Your task to perform on an android device: turn off translation in the chrome app Image 0: 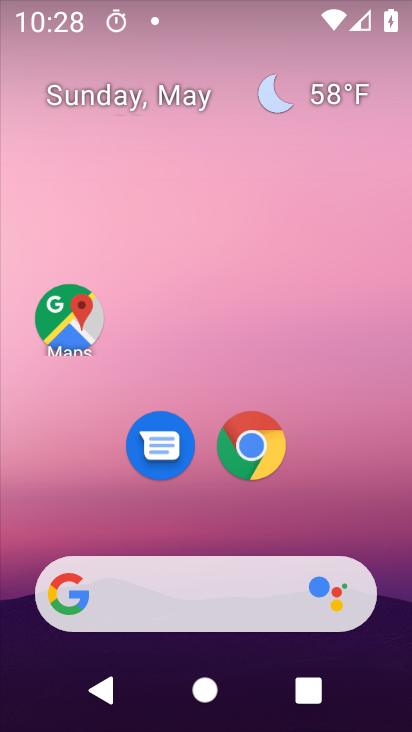
Step 0: drag from (333, 494) to (234, 20)
Your task to perform on an android device: turn off translation in the chrome app Image 1: 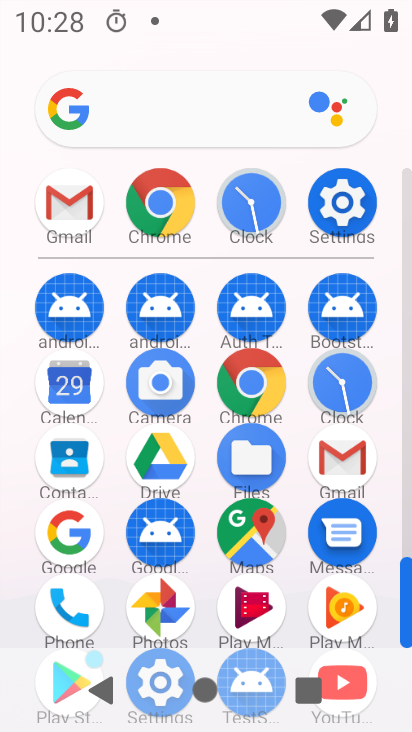
Step 1: click (254, 374)
Your task to perform on an android device: turn off translation in the chrome app Image 2: 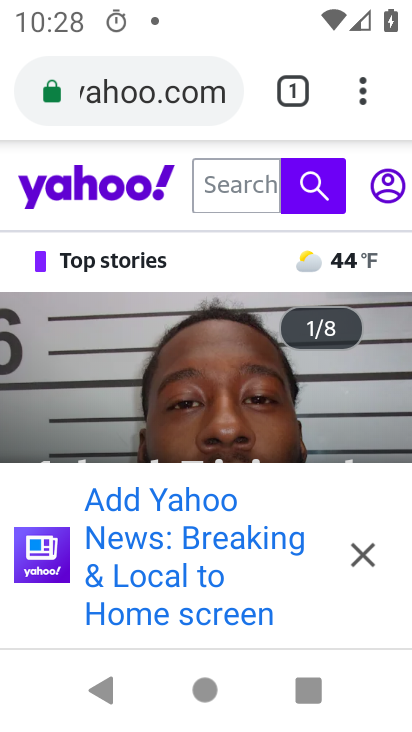
Step 2: drag from (365, 91) to (138, 555)
Your task to perform on an android device: turn off translation in the chrome app Image 3: 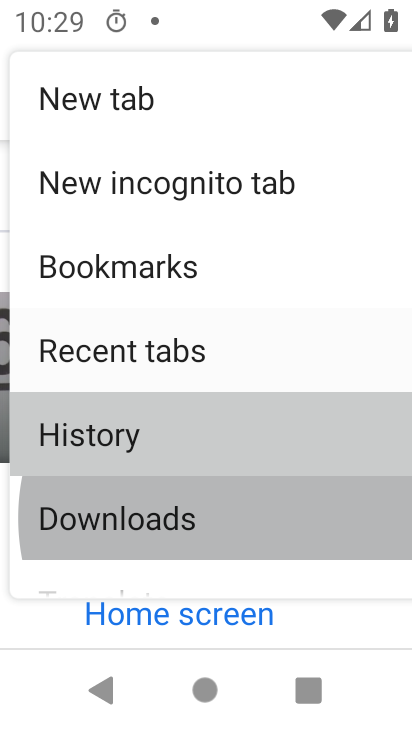
Step 3: drag from (137, 556) to (288, 137)
Your task to perform on an android device: turn off translation in the chrome app Image 4: 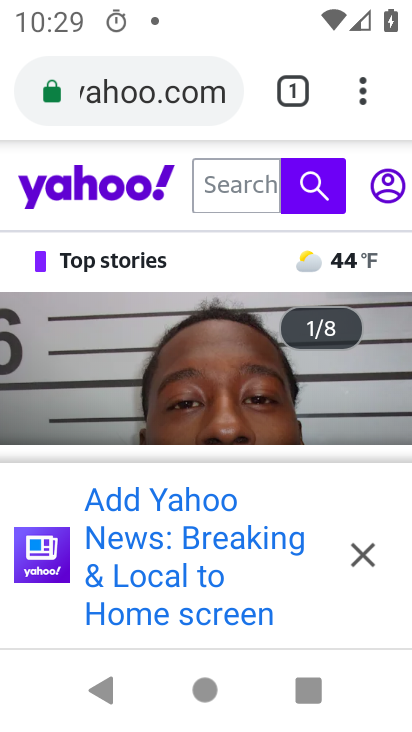
Step 4: drag from (360, 92) to (115, 457)
Your task to perform on an android device: turn off translation in the chrome app Image 5: 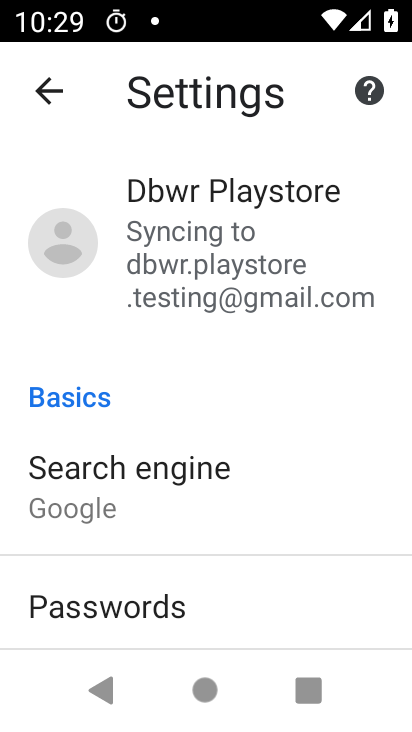
Step 5: drag from (259, 585) to (242, 153)
Your task to perform on an android device: turn off translation in the chrome app Image 6: 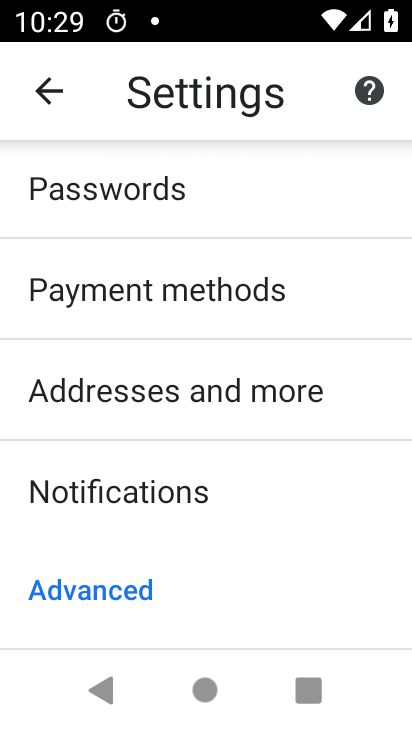
Step 6: drag from (138, 573) to (185, 197)
Your task to perform on an android device: turn off translation in the chrome app Image 7: 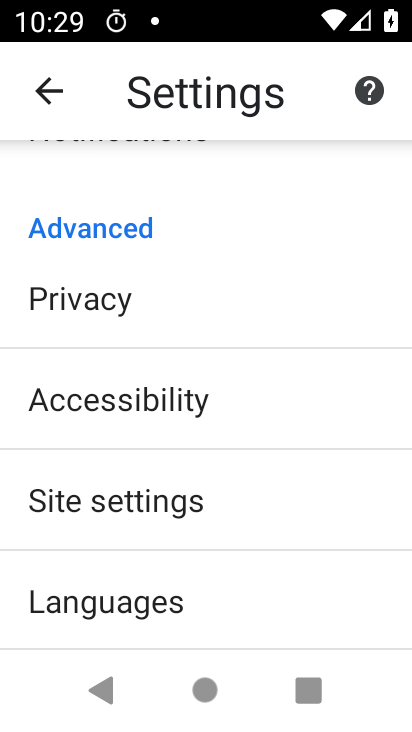
Step 7: drag from (232, 453) to (218, 197)
Your task to perform on an android device: turn off translation in the chrome app Image 8: 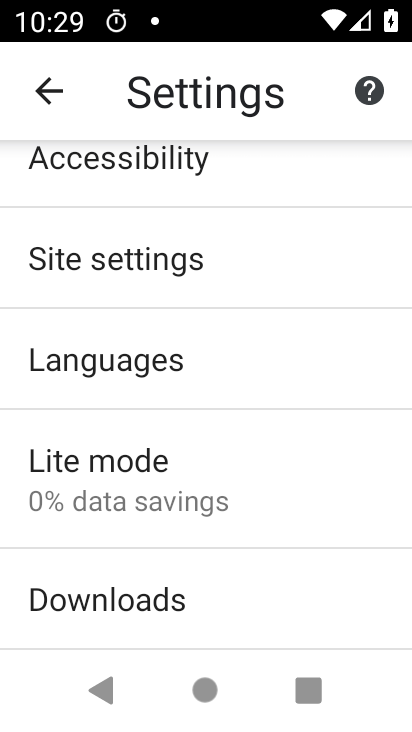
Step 8: drag from (189, 560) to (211, 214)
Your task to perform on an android device: turn off translation in the chrome app Image 9: 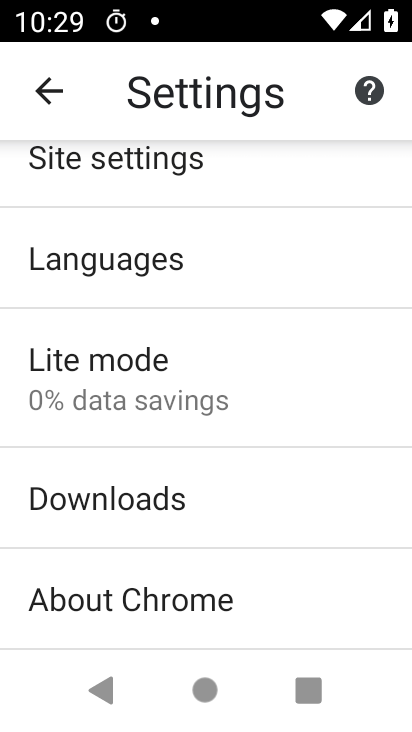
Step 9: click (165, 258)
Your task to perform on an android device: turn off translation in the chrome app Image 10: 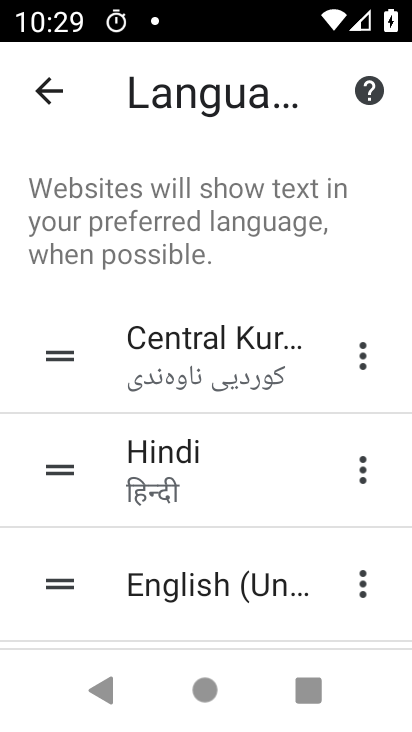
Step 10: drag from (242, 555) to (167, 265)
Your task to perform on an android device: turn off translation in the chrome app Image 11: 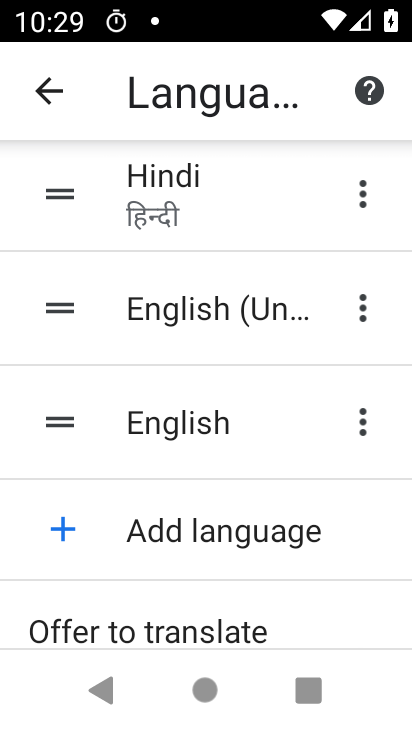
Step 11: drag from (139, 504) to (181, 257)
Your task to perform on an android device: turn off translation in the chrome app Image 12: 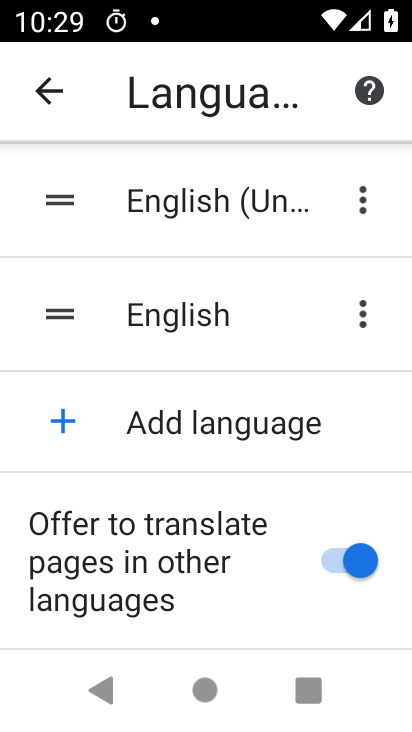
Step 12: click (325, 554)
Your task to perform on an android device: turn off translation in the chrome app Image 13: 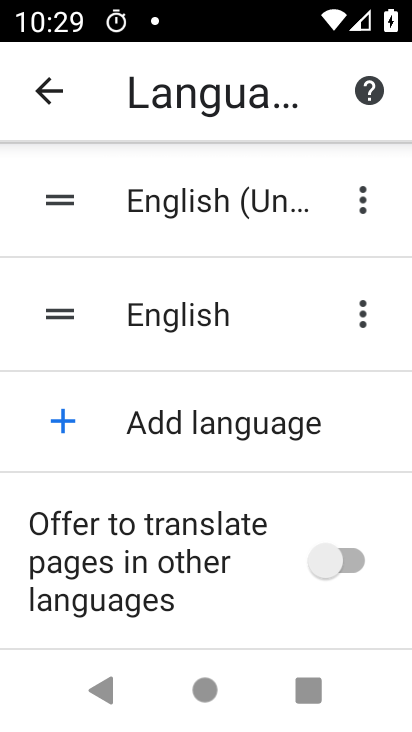
Step 13: task complete